Your task to perform on an android device: allow notifications from all sites in the chrome app Image 0: 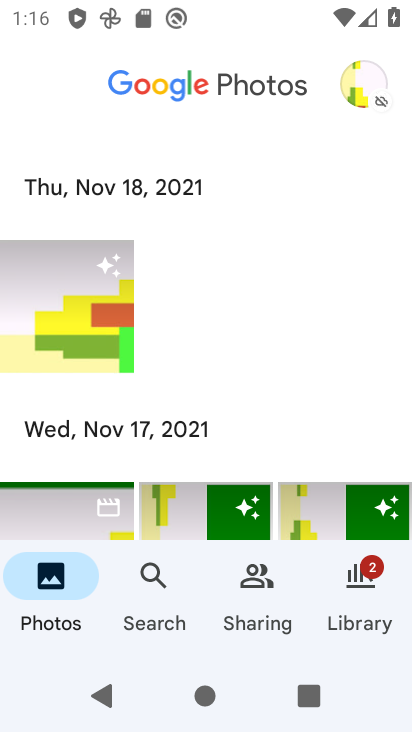
Step 0: press home button
Your task to perform on an android device: allow notifications from all sites in the chrome app Image 1: 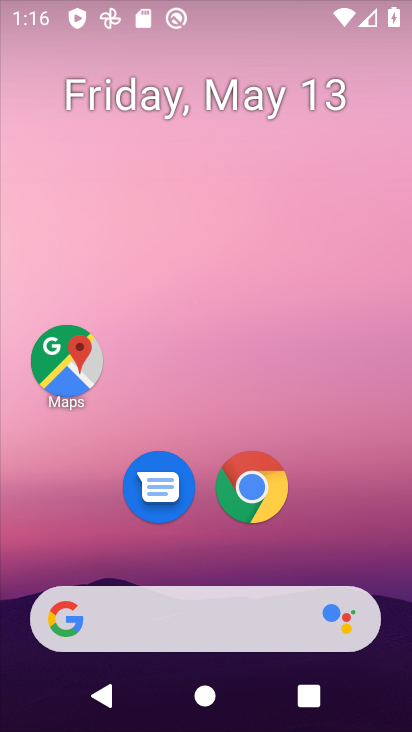
Step 1: drag from (382, 535) to (393, 108)
Your task to perform on an android device: allow notifications from all sites in the chrome app Image 2: 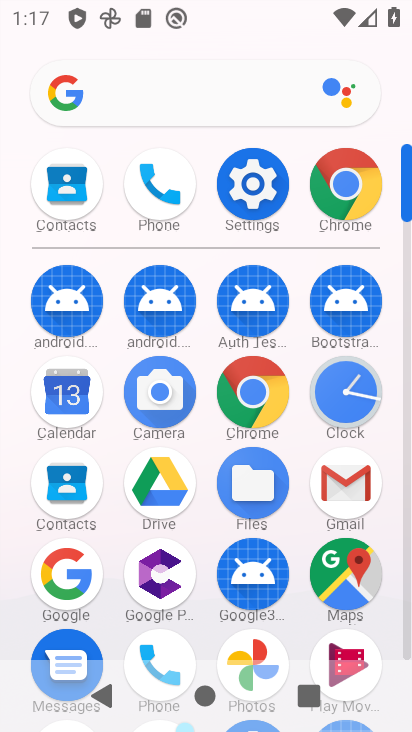
Step 2: click (260, 387)
Your task to perform on an android device: allow notifications from all sites in the chrome app Image 3: 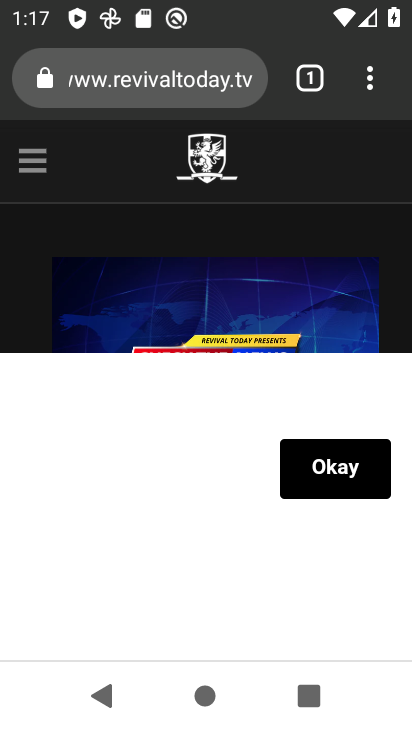
Step 3: press home button
Your task to perform on an android device: allow notifications from all sites in the chrome app Image 4: 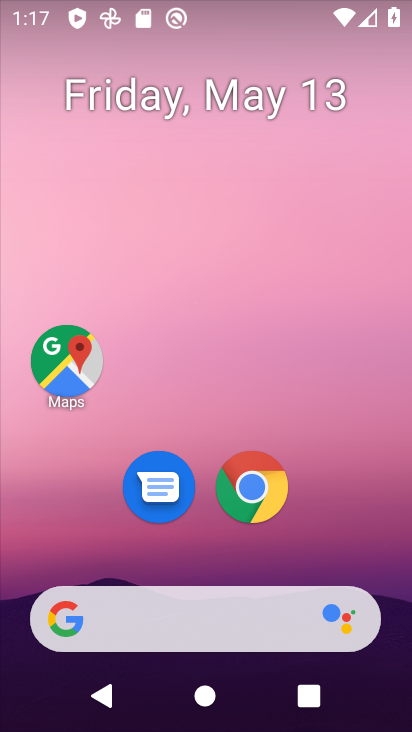
Step 4: click (263, 524)
Your task to perform on an android device: allow notifications from all sites in the chrome app Image 5: 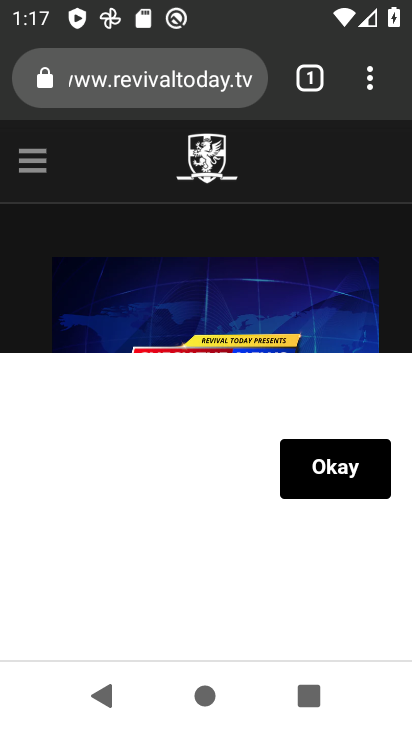
Step 5: drag from (382, 93) to (161, 527)
Your task to perform on an android device: allow notifications from all sites in the chrome app Image 6: 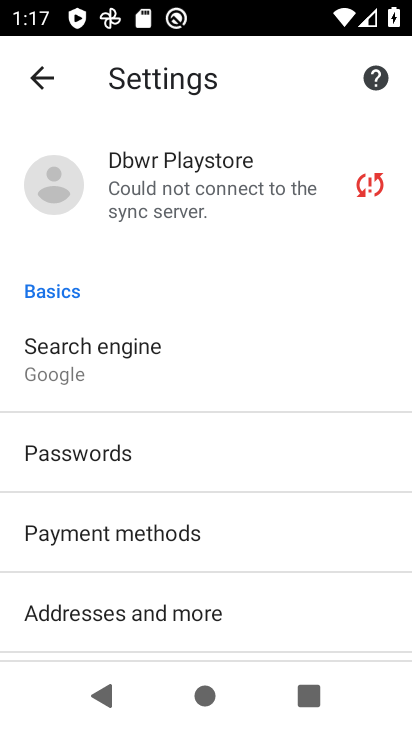
Step 6: drag from (258, 588) to (264, 345)
Your task to perform on an android device: allow notifications from all sites in the chrome app Image 7: 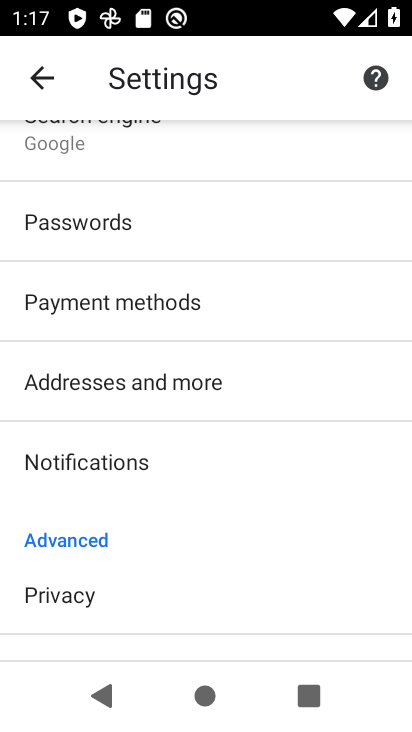
Step 7: drag from (281, 582) to (291, 294)
Your task to perform on an android device: allow notifications from all sites in the chrome app Image 8: 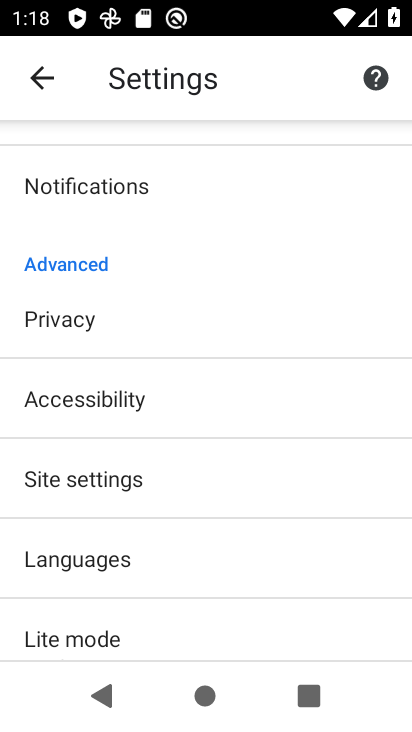
Step 8: click (203, 483)
Your task to perform on an android device: allow notifications from all sites in the chrome app Image 9: 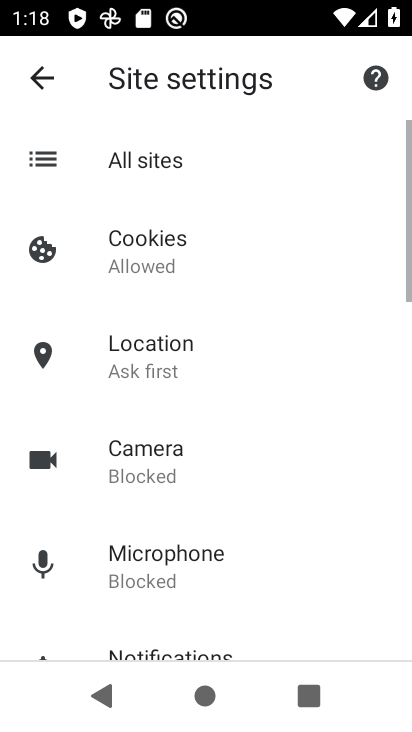
Step 9: click (191, 158)
Your task to perform on an android device: allow notifications from all sites in the chrome app Image 10: 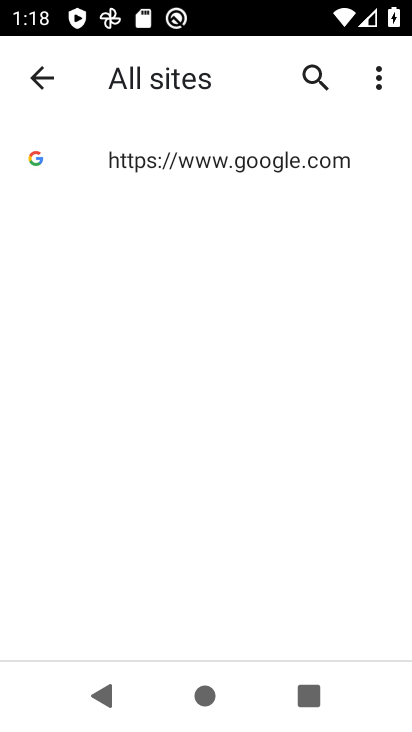
Step 10: task complete